Your task to perform on an android device: Go to privacy settings Image 0: 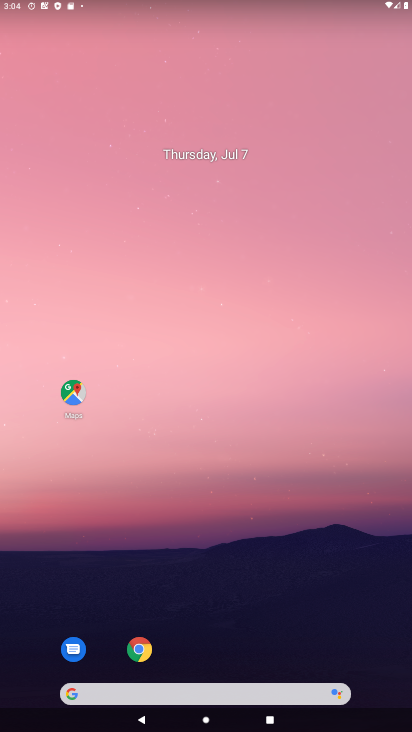
Step 0: drag from (275, 676) to (270, 78)
Your task to perform on an android device: Go to privacy settings Image 1: 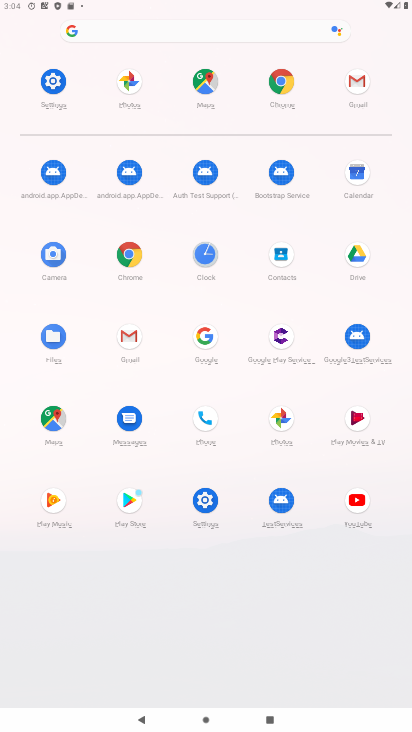
Step 1: click (44, 92)
Your task to perform on an android device: Go to privacy settings Image 2: 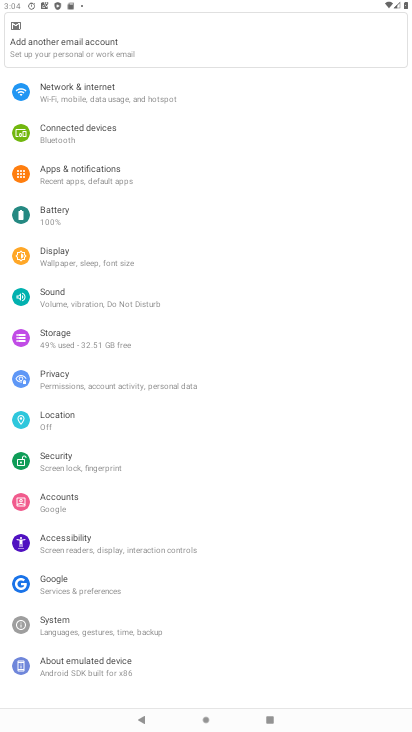
Step 2: drag from (70, 188) to (99, 487)
Your task to perform on an android device: Go to privacy settings Image 3: 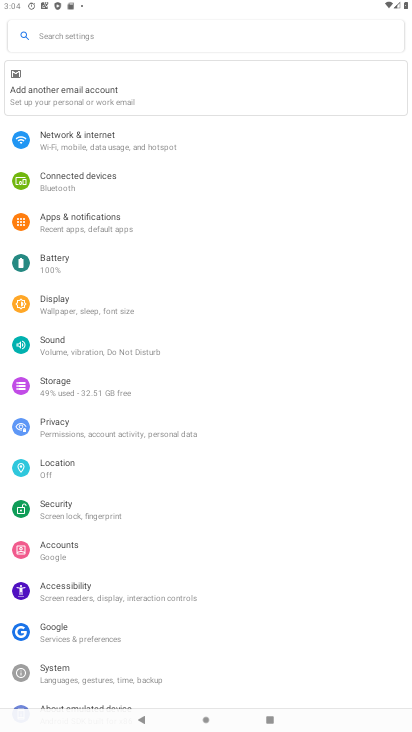
Step 3: click (86, 430)
Your task to perform on an android device: Go to privacy settings Image 4: 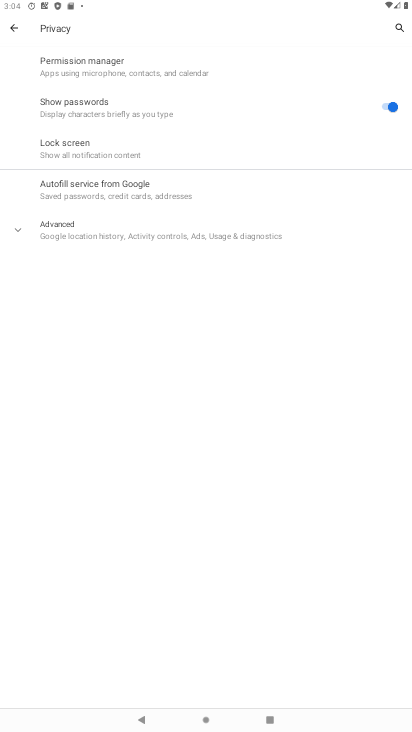
Step 4: task complete